Your task to perform on an android device: Go to notification settings Image 0: 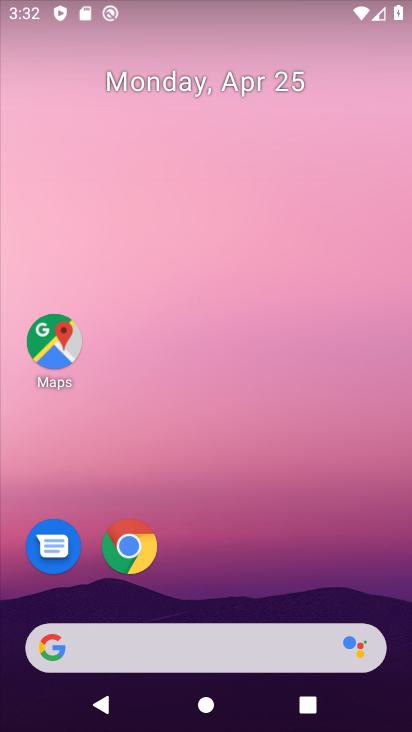
Step 0: drag from (225, 498) to (296, 87)
Your task to perform on an android device: Go to notification settings Image 1: 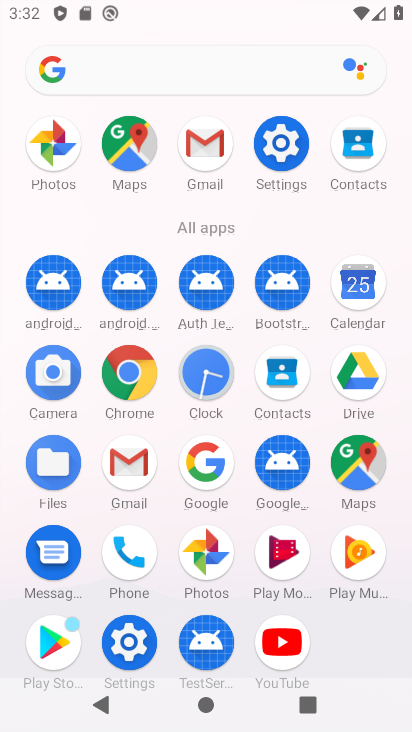
Step 1: click (129, 648)
Your task to perform on an android device: Go to notification settings Image 2: 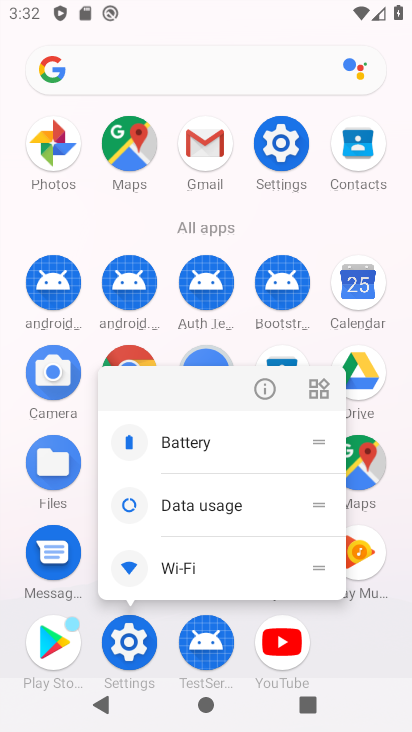
Step 2: click (147, 637)
Your task to perform on an android device: Go to notification settings Image 3: 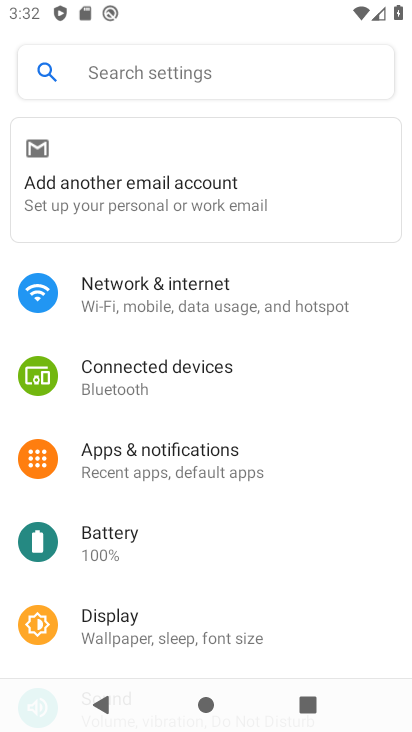
Step 3: click (200, 464)
Your task to perform on an android device: Go to notification settings Image 4: 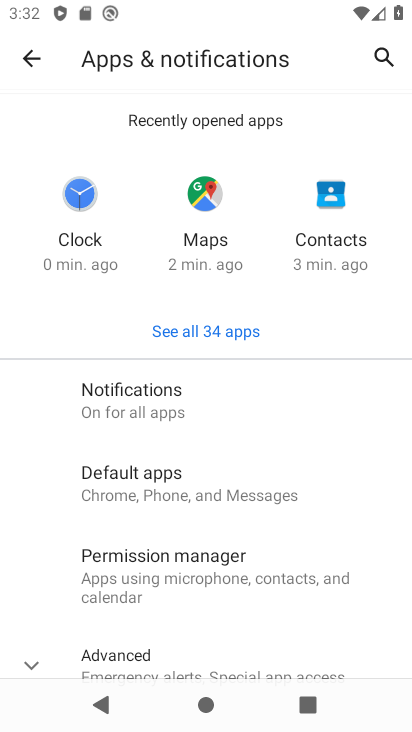
Step 4: drag from (236, 604) to (284, 347)
Your task to perform on an android device: Go to notification settings Image 5: 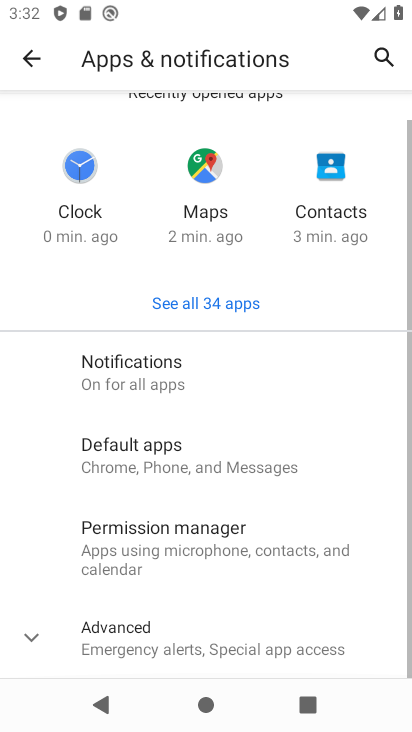
Step 5: click (255, 371)
Your task to perform on an android device: Go to notification settings Image 6: 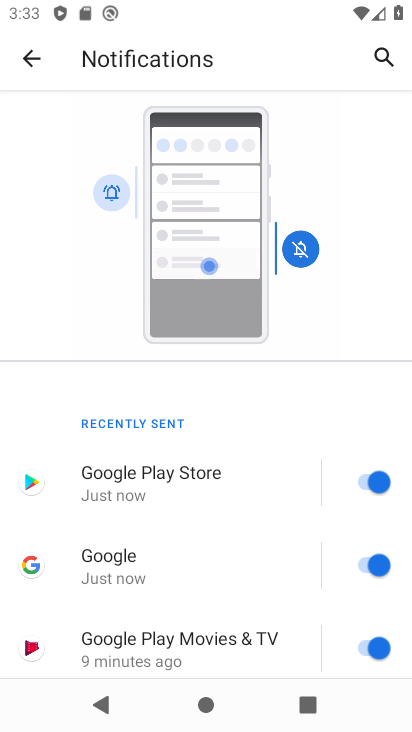
Step 6: task complete